Your task to perform on an android device: Open settings Image 0: 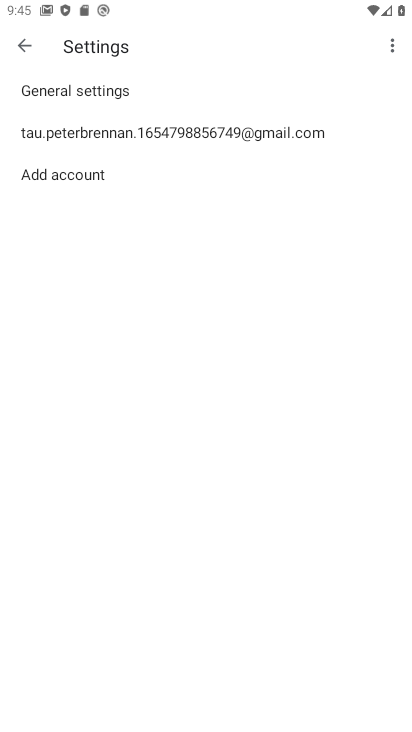
Step 0: press home button
Your task to perform on an android device: Open settings Image 1: 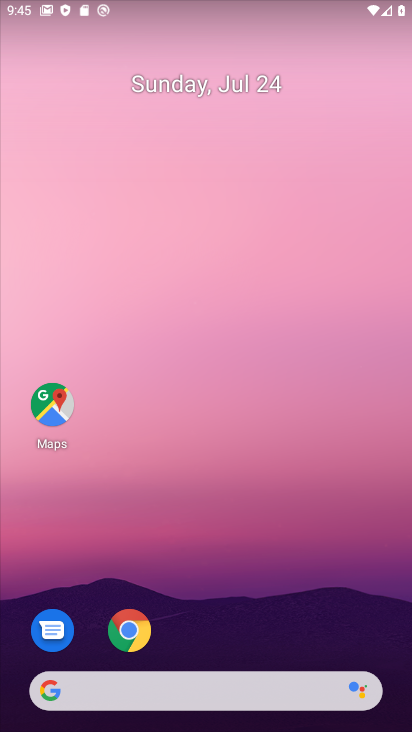
Step 1: drag from (214, 621) to (291, 6)
Your task to perform on an android device: Open settings Image 2: 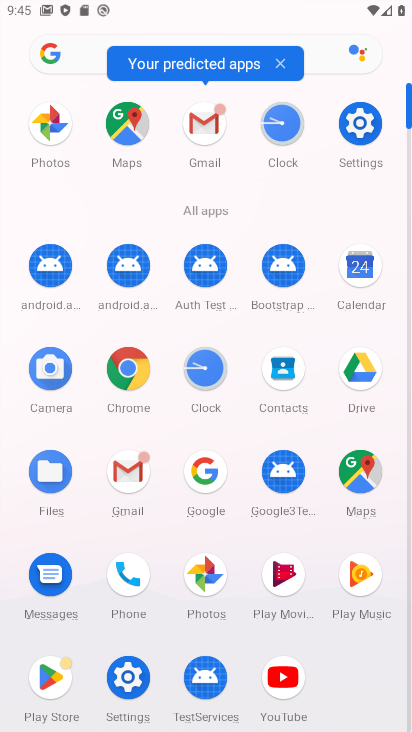
Step 2: click (127, 687)
Your task to perform on an android device: Open settings Image 3: 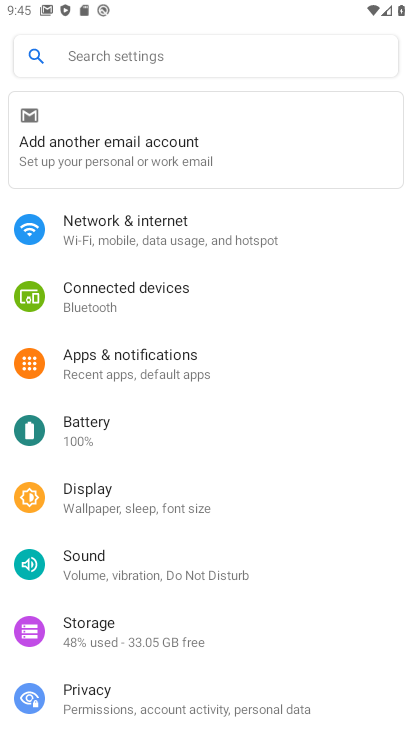
Step 3: task complete